Your task to perform on an android device: Is it going to rain today? Image 0: 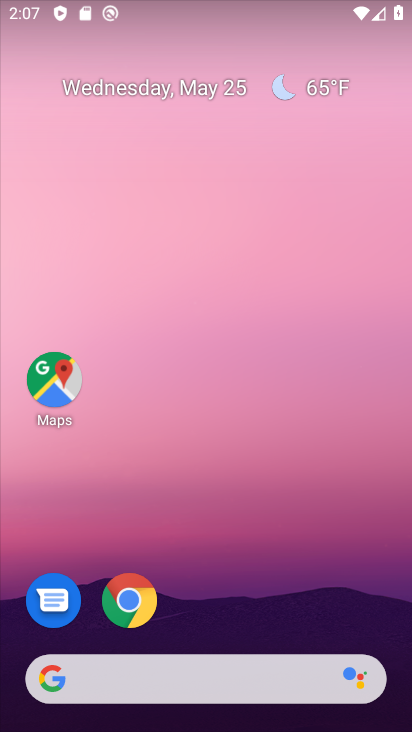
Step 0: drag from (303, 541) to (312, 122)
Your task to perform on an android device: Is it going to rain today? Image 1: 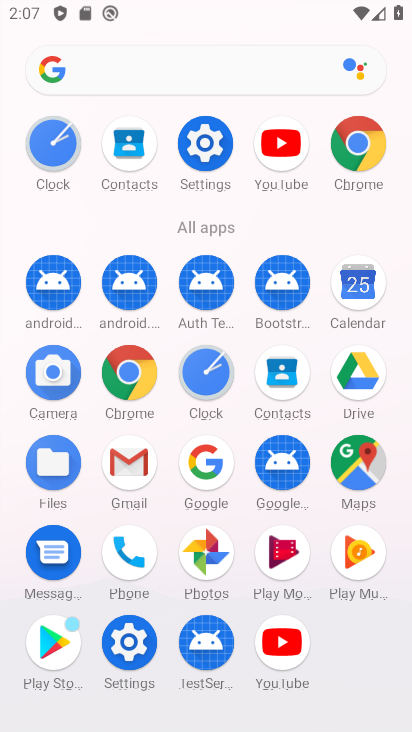
Step 1: press home button
Your task to perform on an android device: Is it going to rain today? Image 2: 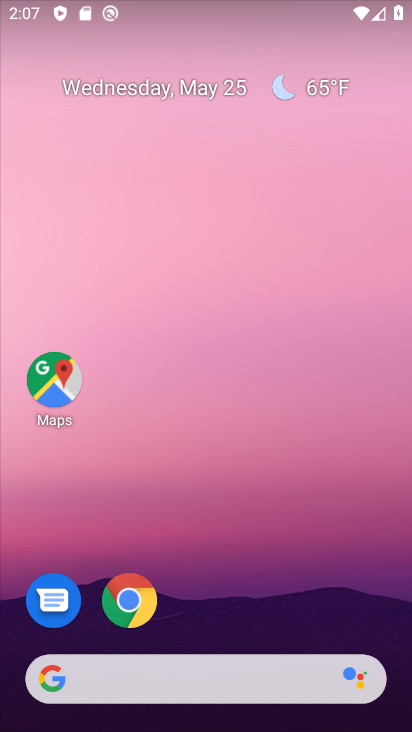
Step 2: click (322, 95)
Your task to perform on an android device: Is it going to rain today? Image 3: 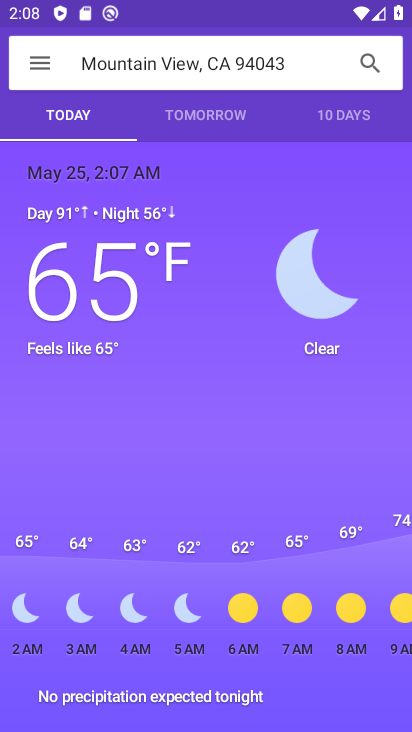
Step 3: drag from (217, 125) to (98, 221)
Your task to perform on an android device: Is it going to rain today? Image 4: 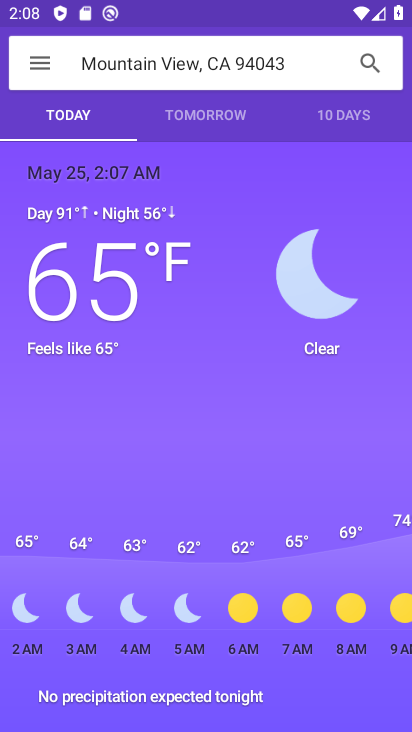
Step 4: click (96, 125)
Your task to perform on an android device: Is it going to rain today? Image 5: 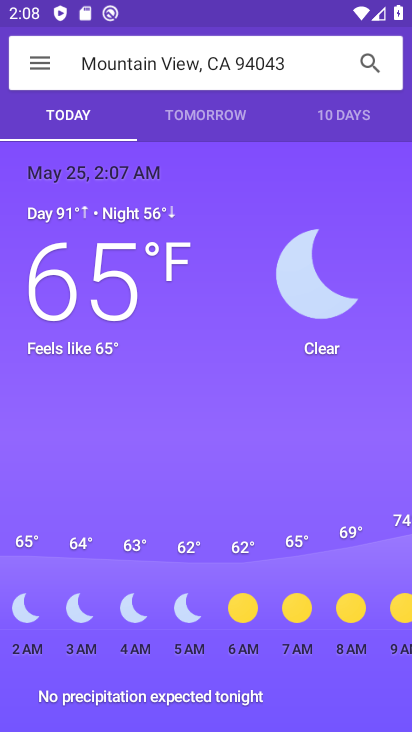
Step 5: task complete